Your task to perform on an android device: uninstall "Instagram" Image 0: 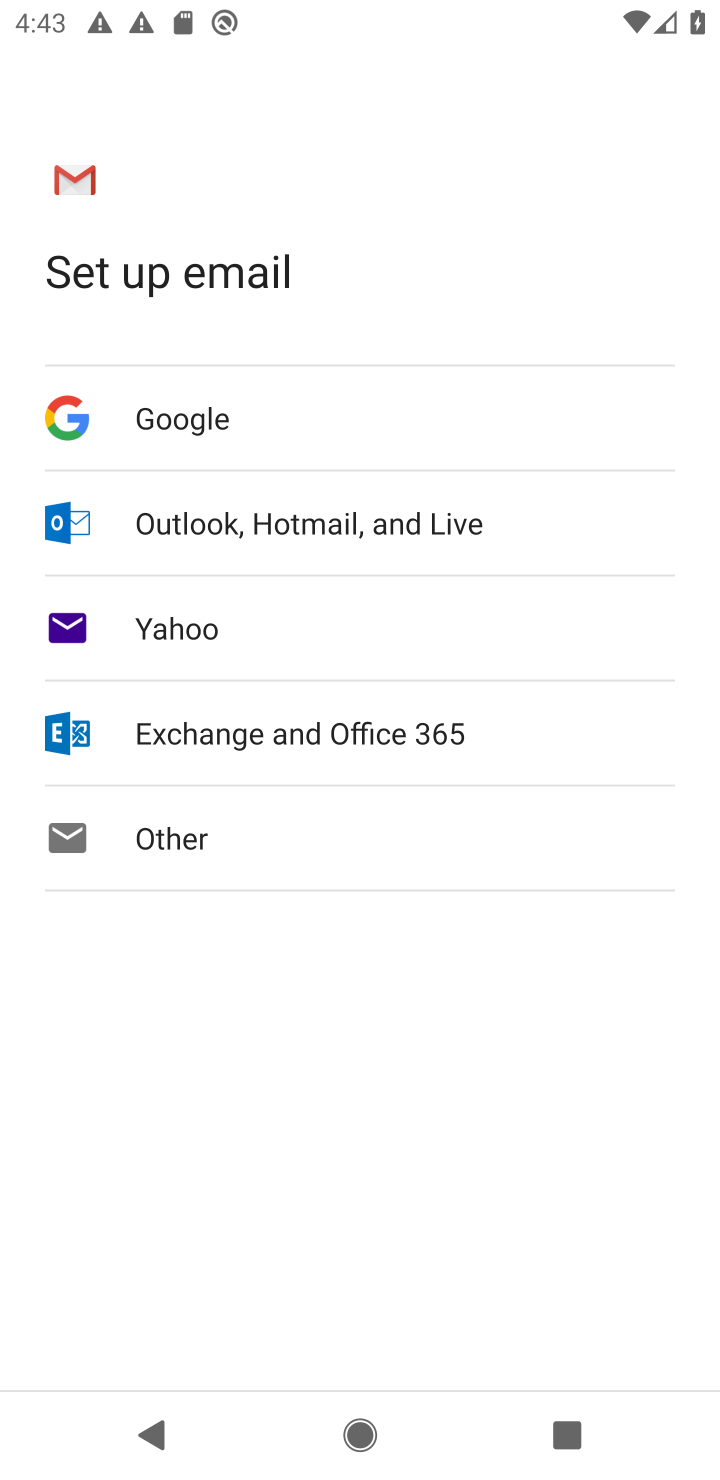
Step 0: press home button
Your task to perform on an android device: uninstall "Instagram" Image 1: 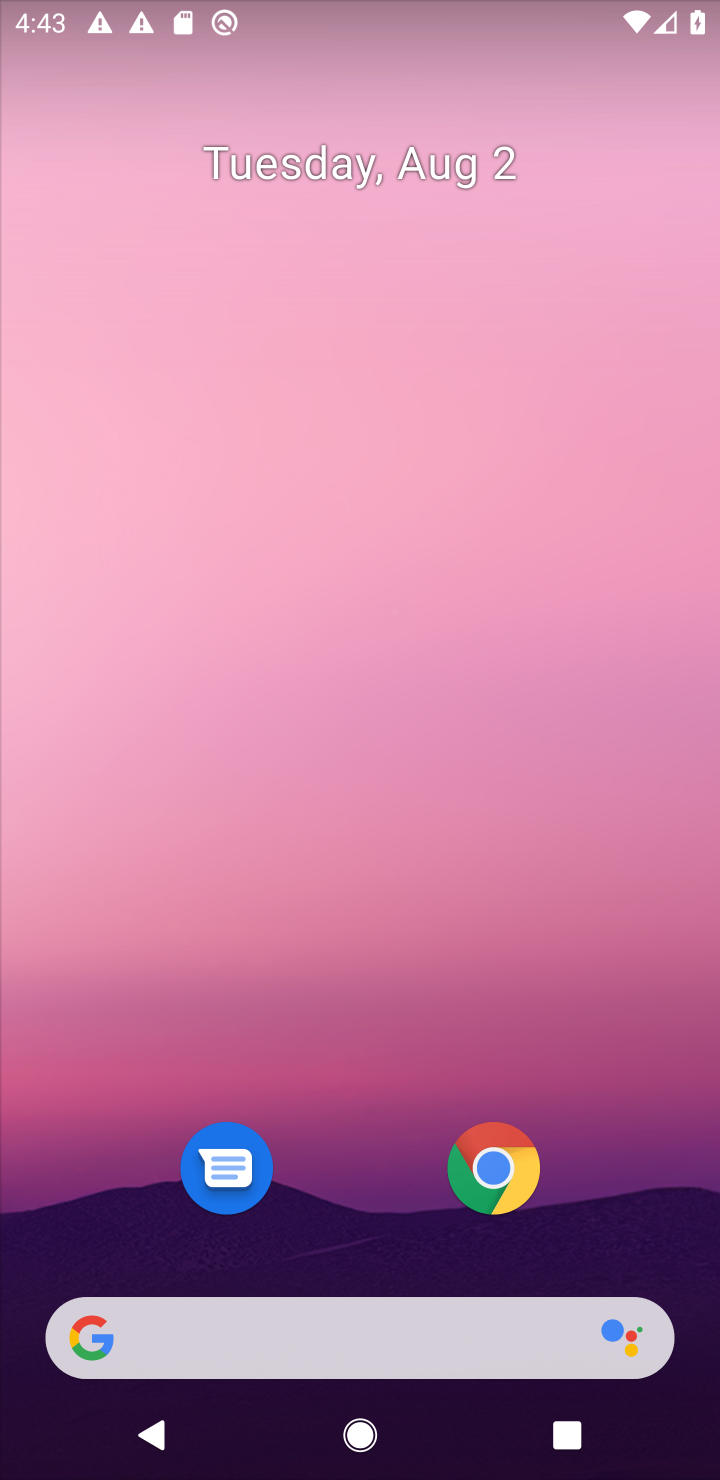
Step 1: drag from (313, 1238) to (442, 16)
Your task to perform on an android device: uninstall "Instagram" Image 2: 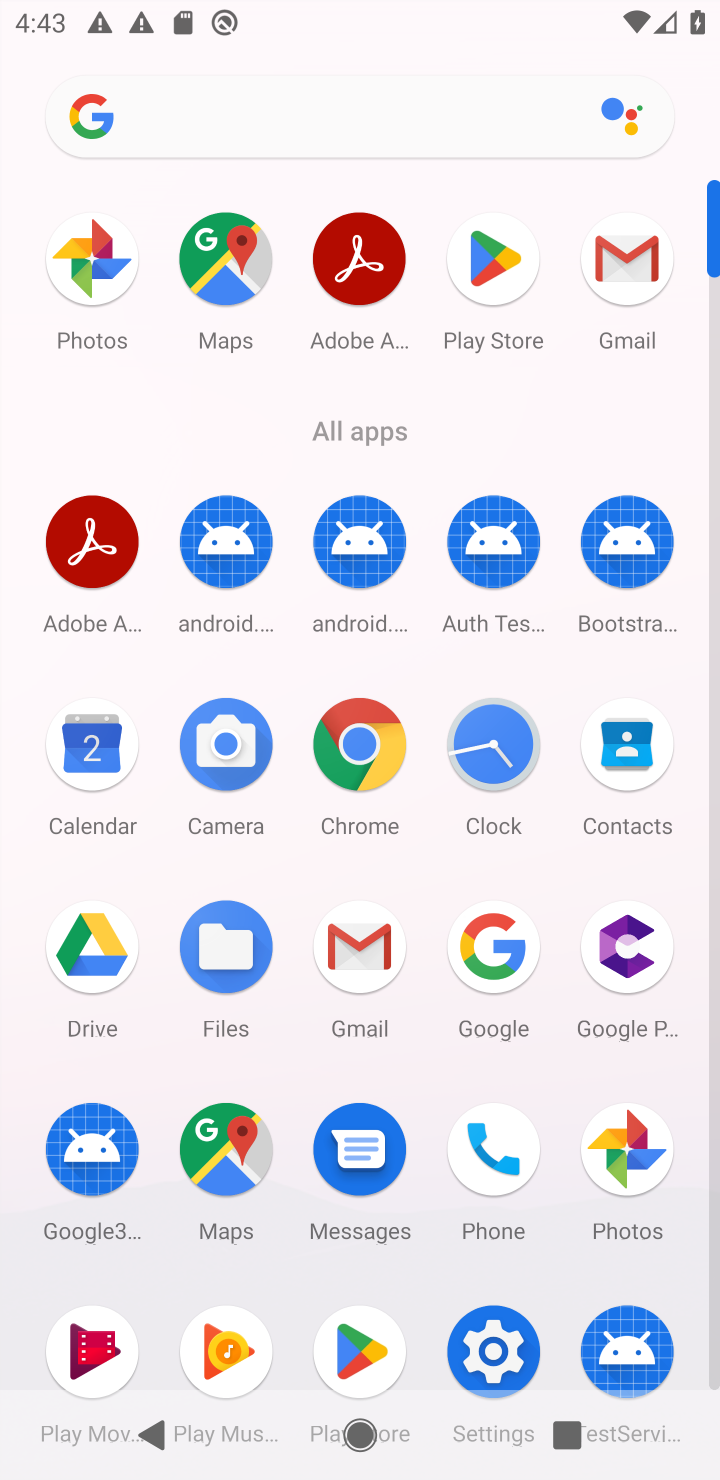
Step 2: click (499, 295)
Your task to perform on an android device: uninstall "Instagram" Image 3: 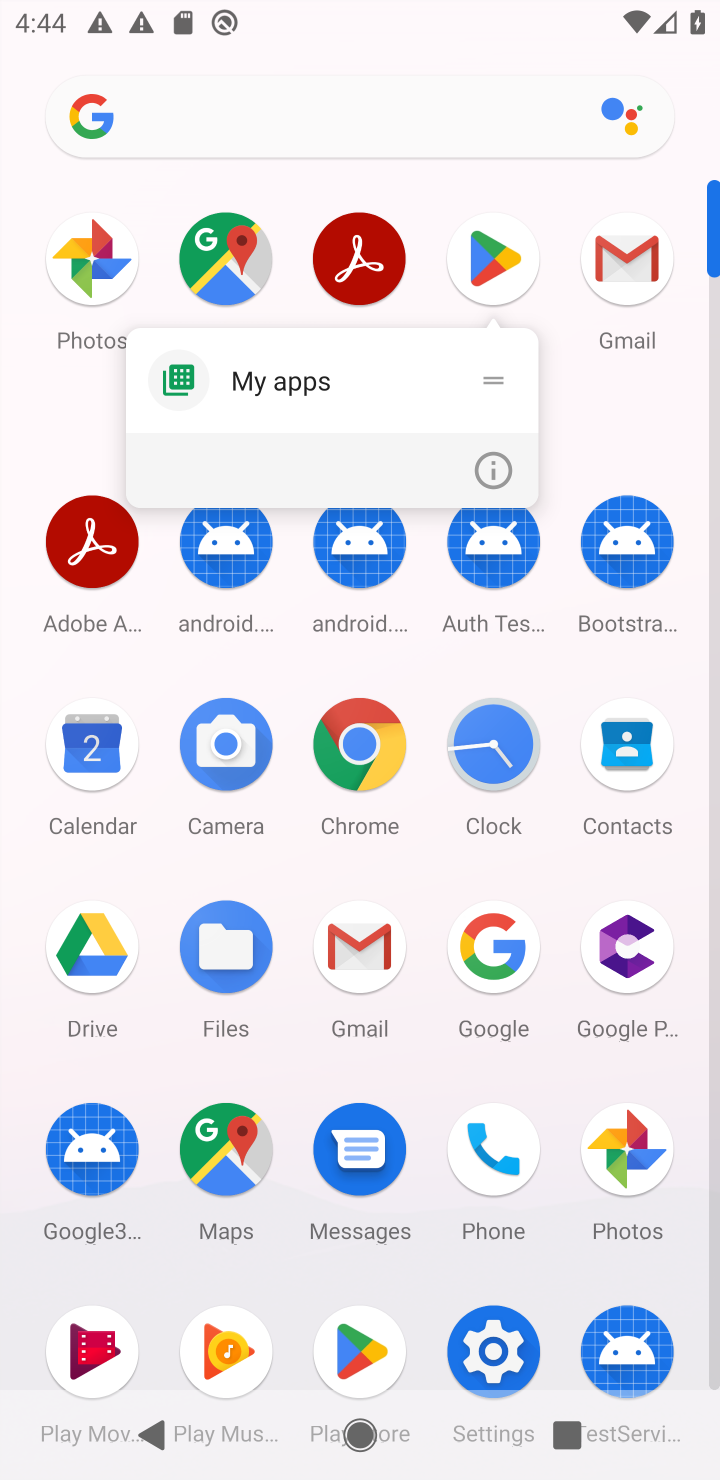
Step 3: click (515, 243)
Your task to perform on an android device: uninstall "Instagram" Image 4: 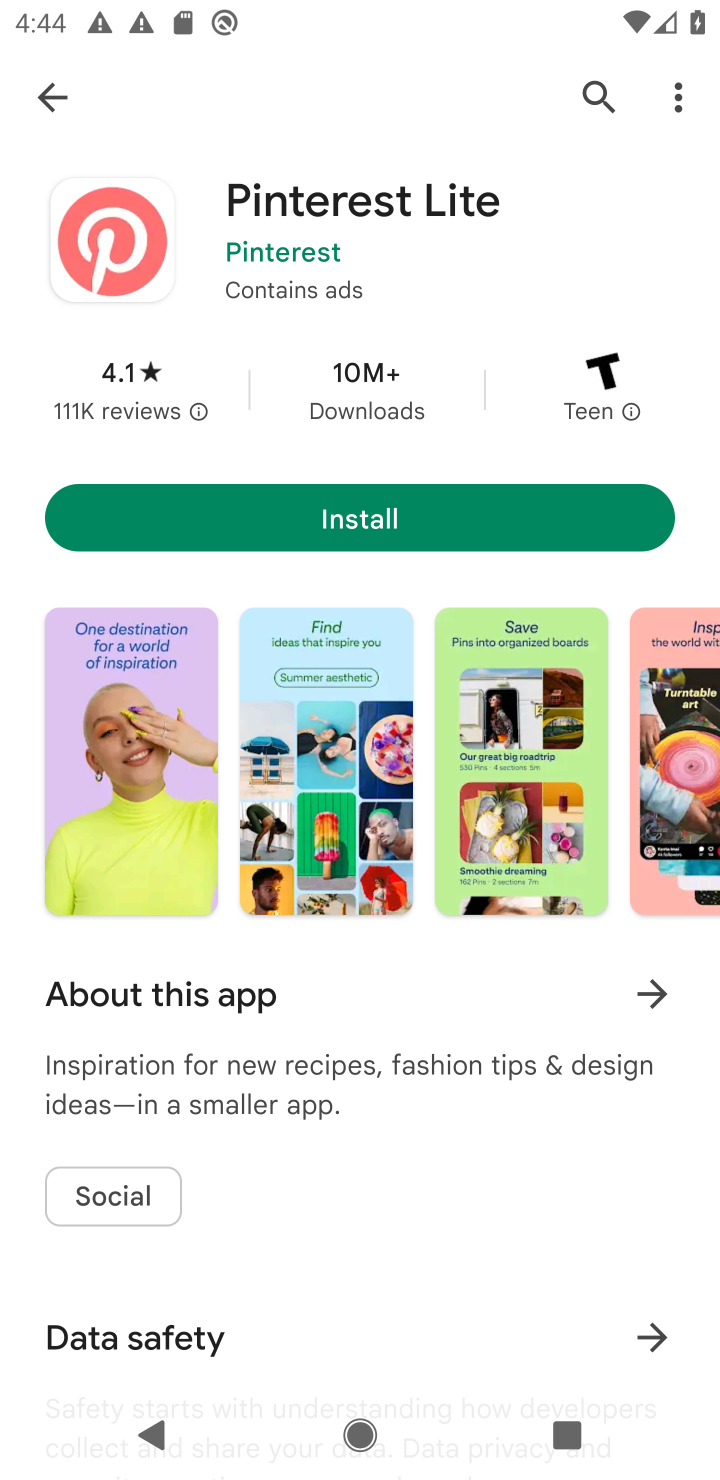
Step 4: click (65, 105)
Your task to perform on an android device: uninstall "Instagram" Image 5: 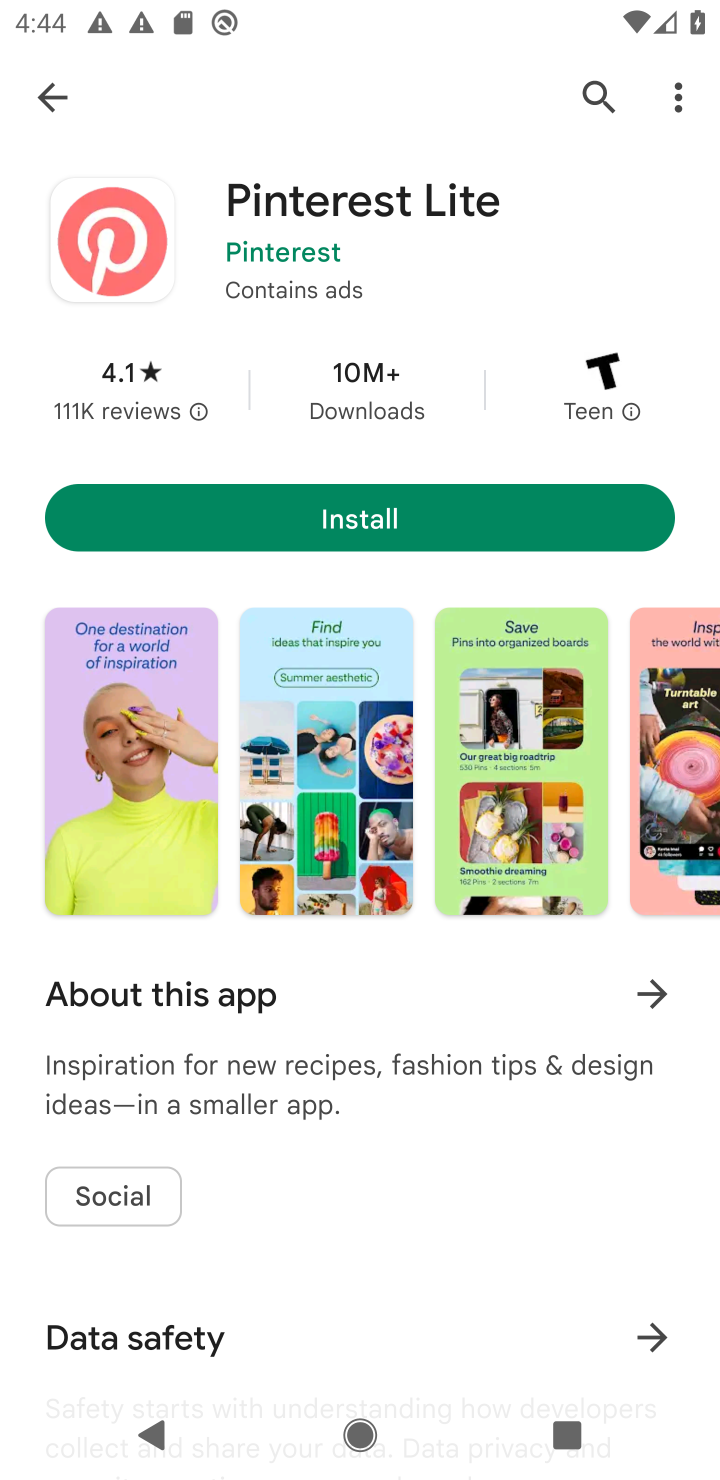
Step 5: click (48, 102)
Your task to perform on an android device: uninstall "Instagram" Image 6: 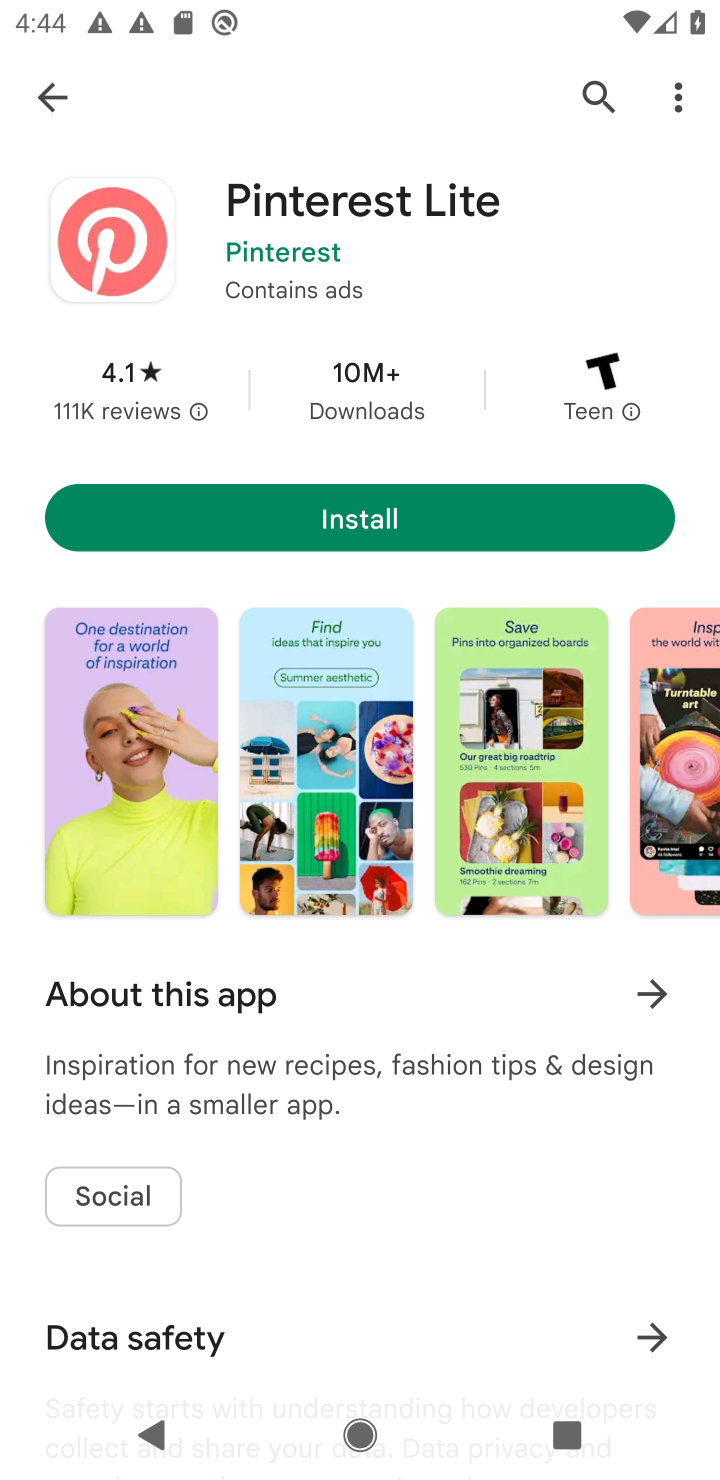
Step 6: click (74, 110)
Your task to perform on an android device: uninstall "Instagram" Image 7: 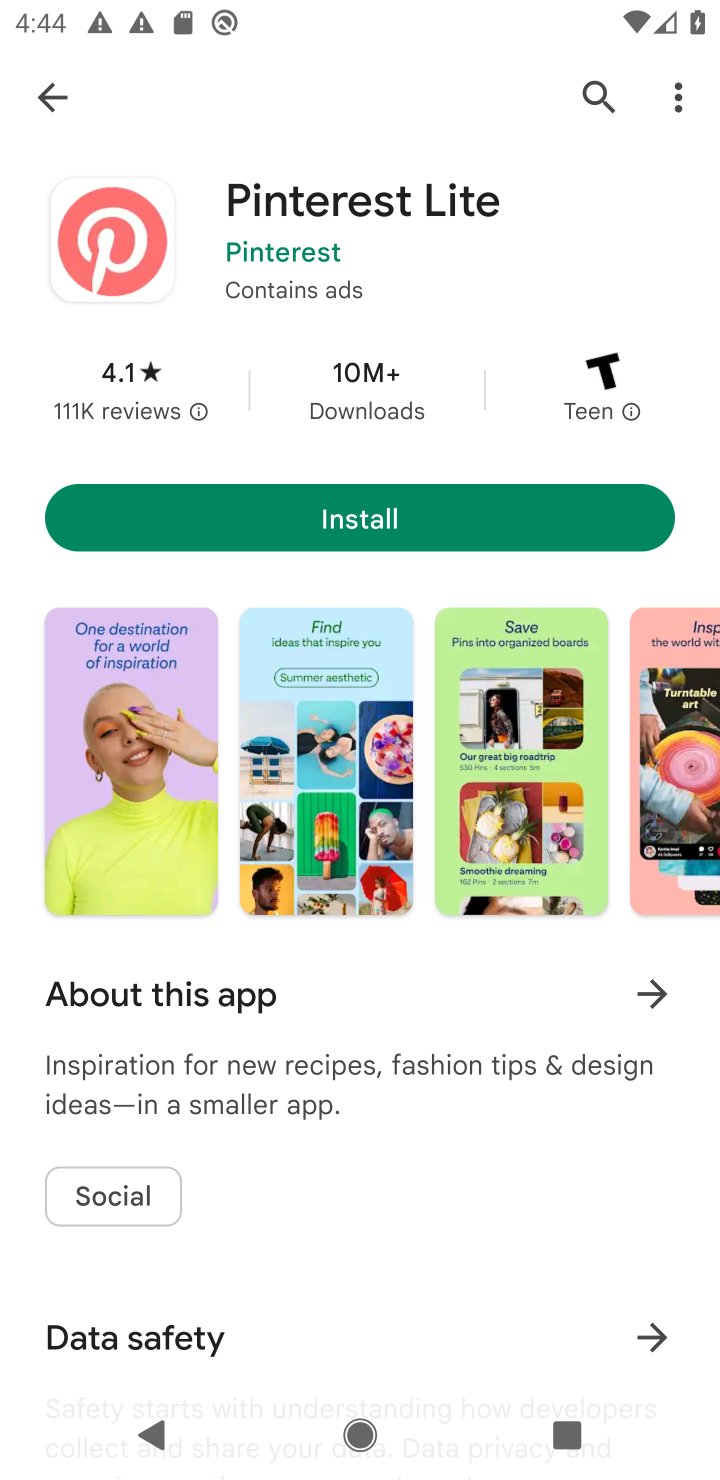
Step 7: click (37, 97)
Your task to perform on an android device: uninstall "Instagram" Image 8: 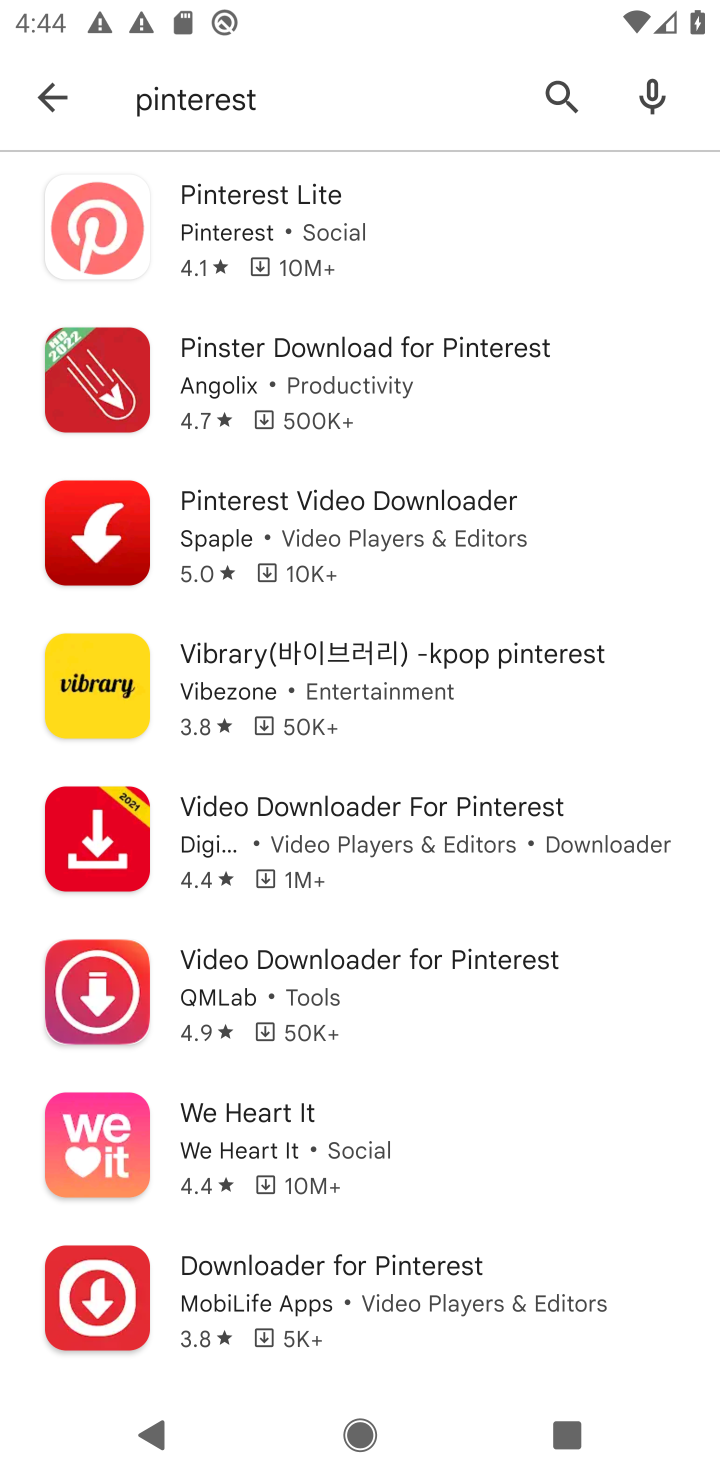
Step 8: click (273, 109)
Your task to perform on an android device: uninstall "Instagram" Image 9: 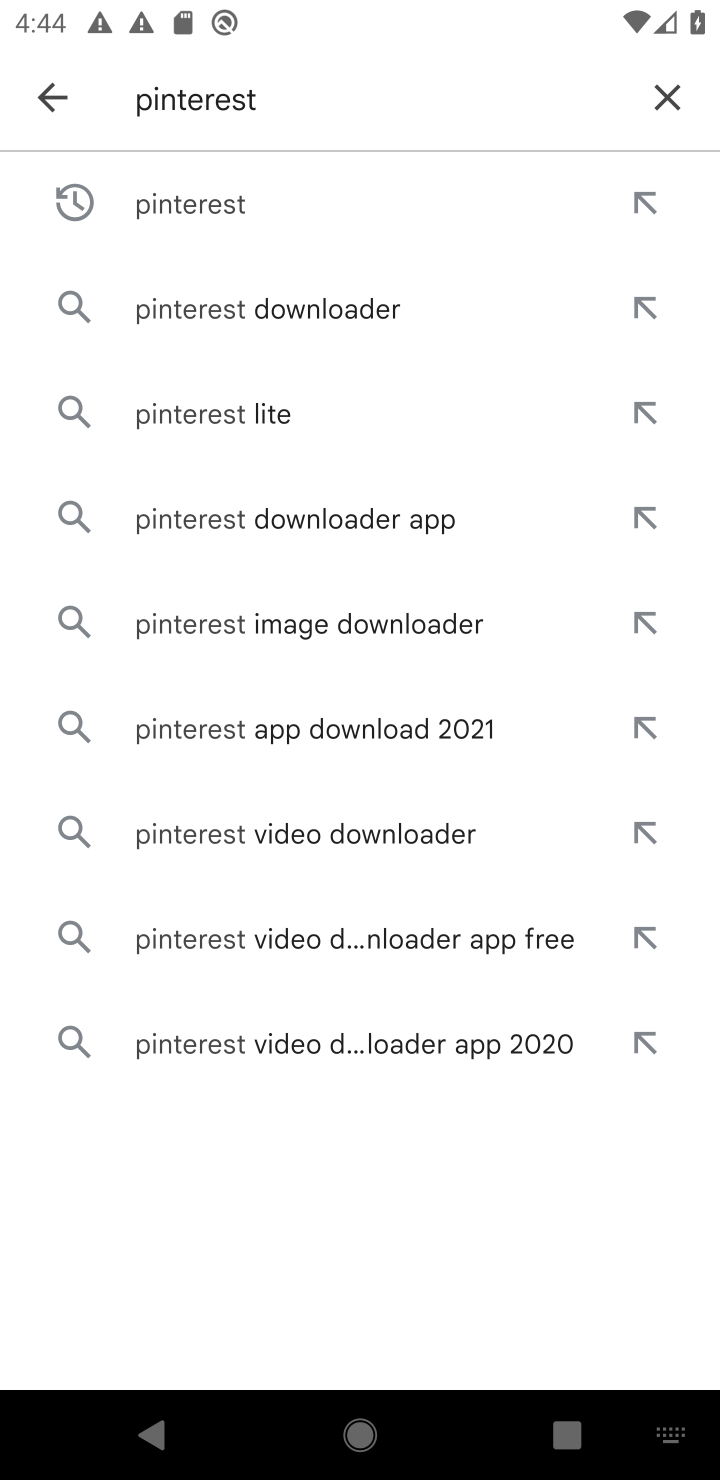
Step 9: click (654, 97)
Your task to perform on an android device: uninstall "Instagram" Image 10: 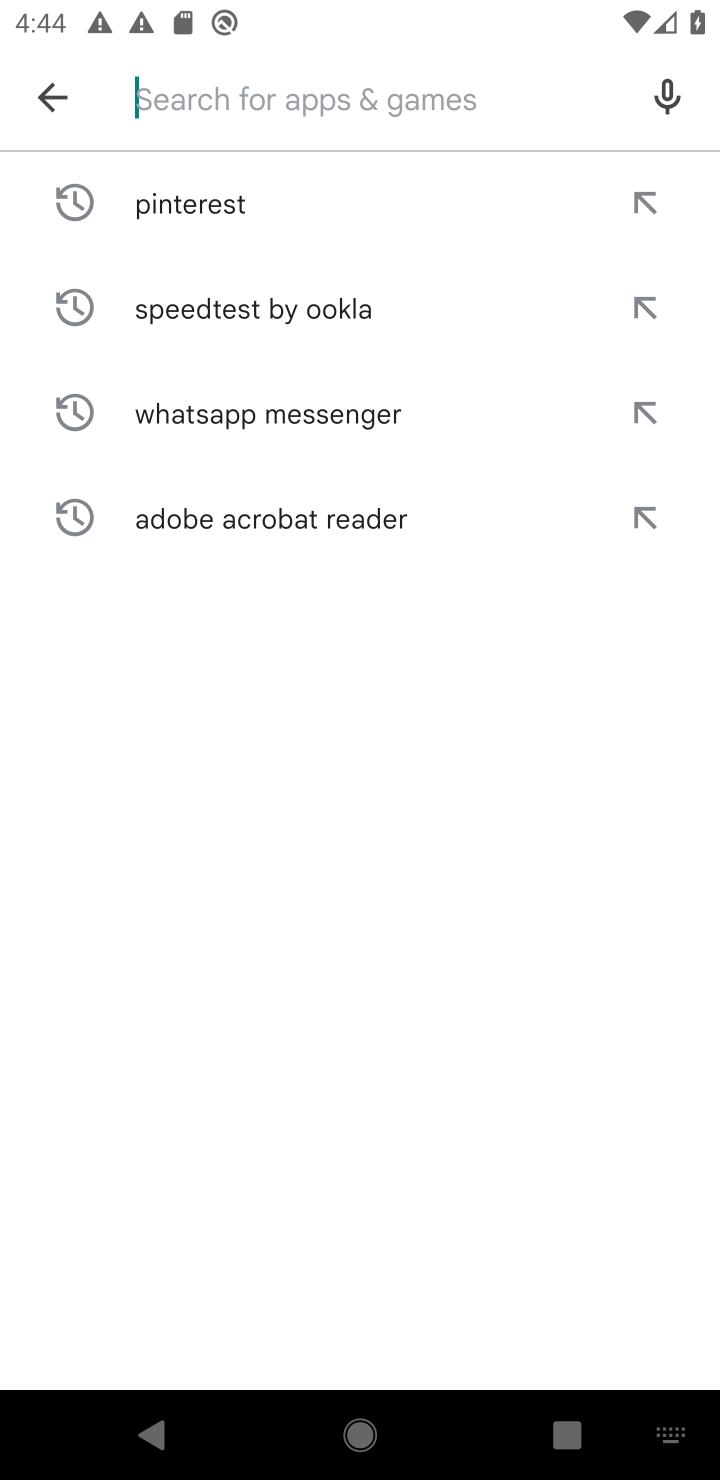
Step 10: type "Instagram"
Your task to perform on an android device: uninstall "Instagram" Image 11: 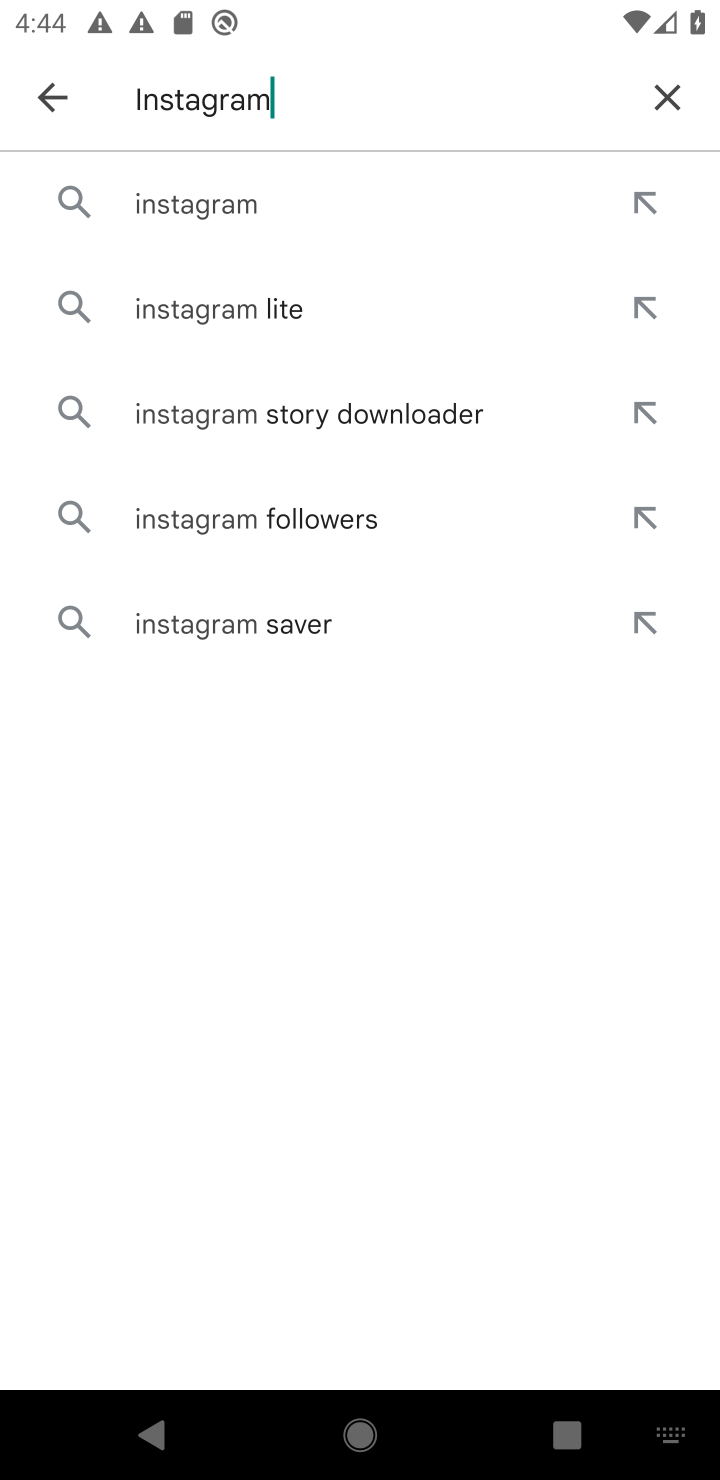
Step 11: click (254, 213)
Your task to perform on an android device: uninstall "Instagram" Image 12: 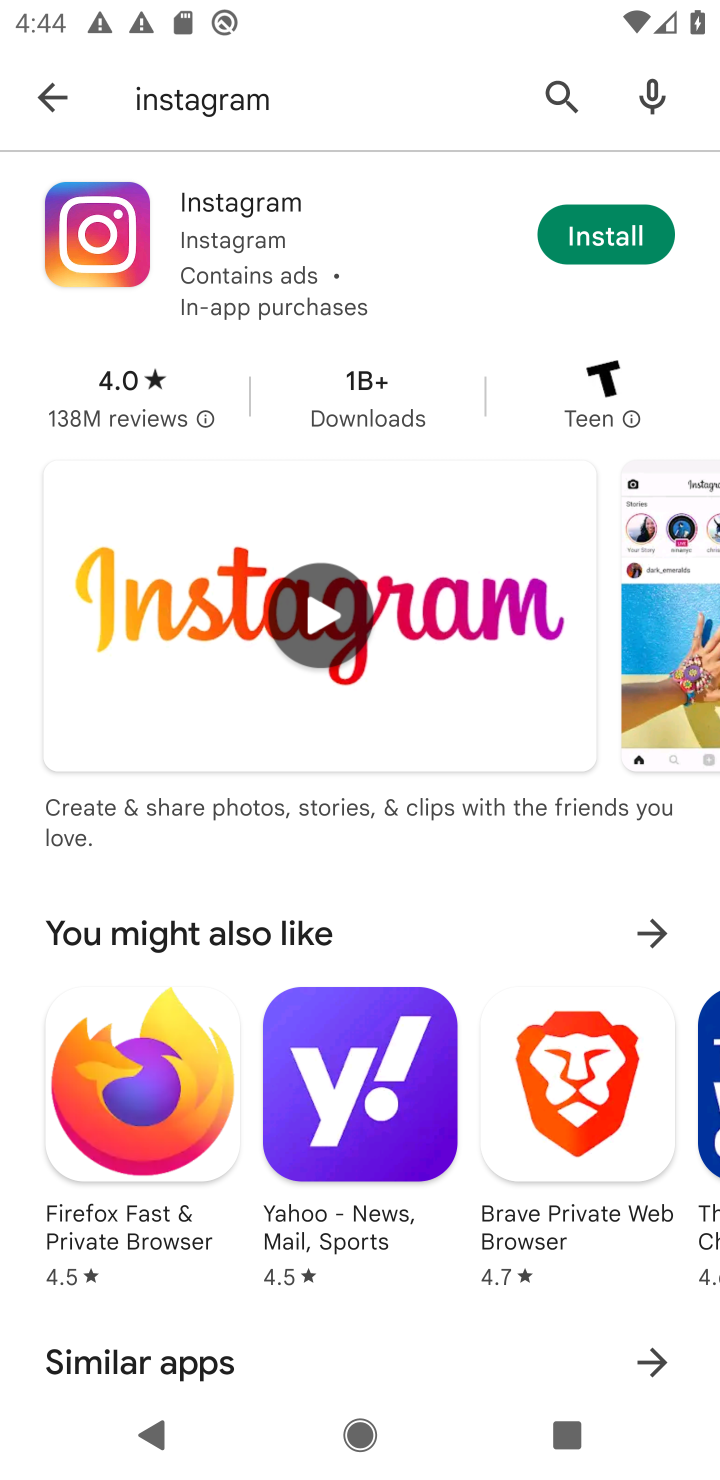
Step 12: task complete